Your task to perform on an android device: delete browsing data in the chrome app Image 0: 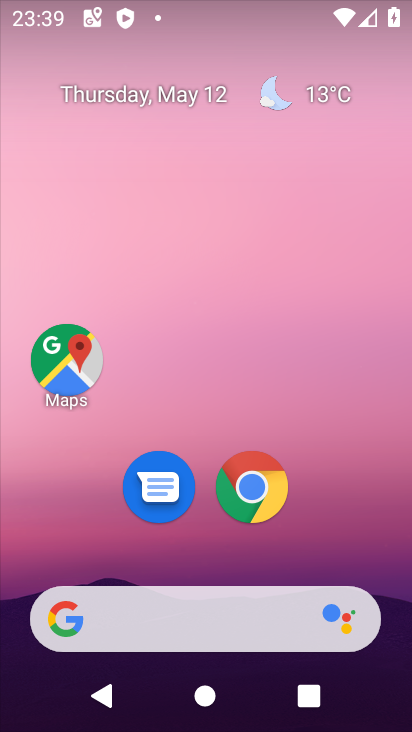
Step 0: click (242, 492)
Your task to perform on an android device: delete browsing data in the chrome app Image 1: 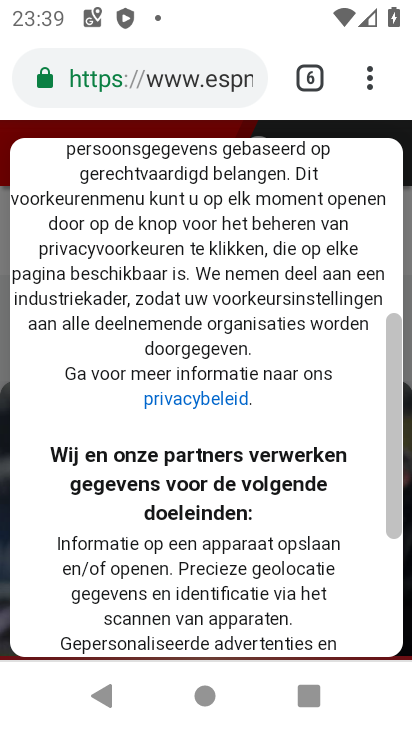
Step 1: click (386, 72)
Your task to perform on an android device: delete browsing data in the chrome app Image 2: 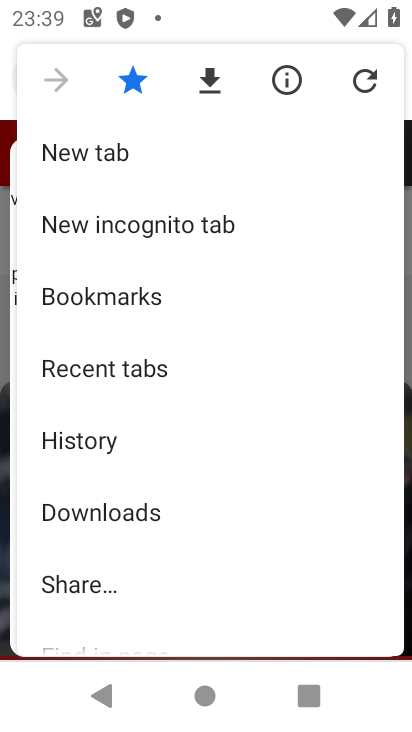
Step 2: drag from (128, 543) to (87, 99)
Your task to perform on an android device: delete browsing data in the chrome app Image 3: 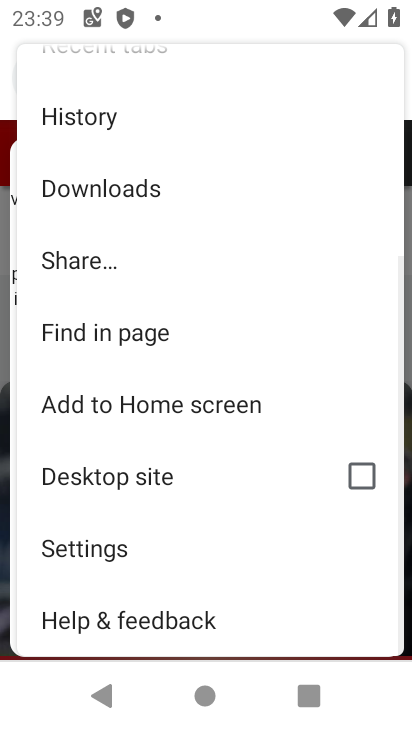
Step 3: click (103, 539)
Your task to perform on an android device: delete browsing data in the chrome app Image 4: 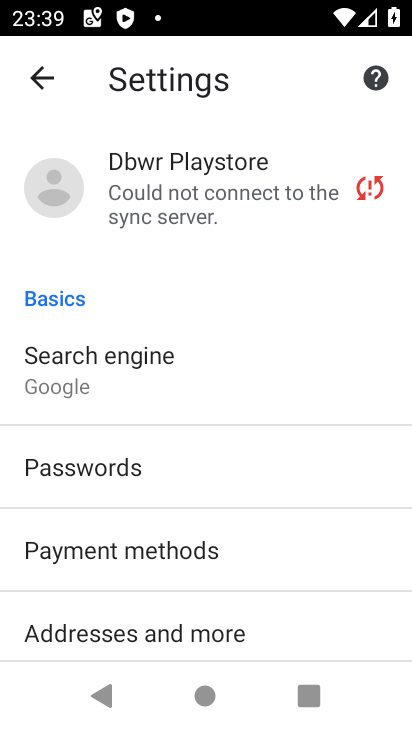
Step 4: drag from (103, 539) to (128, 102)
Your task to perform on an android device: delete browsing data in the chrome app Image 5: 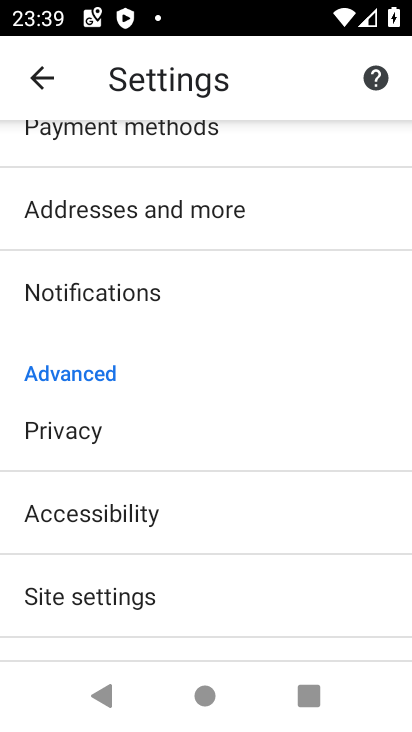
Step 5: drag from (121, 584) to (170, 156)
Your task to perform on an android device: delete browsing data in the chrome app Image 6: 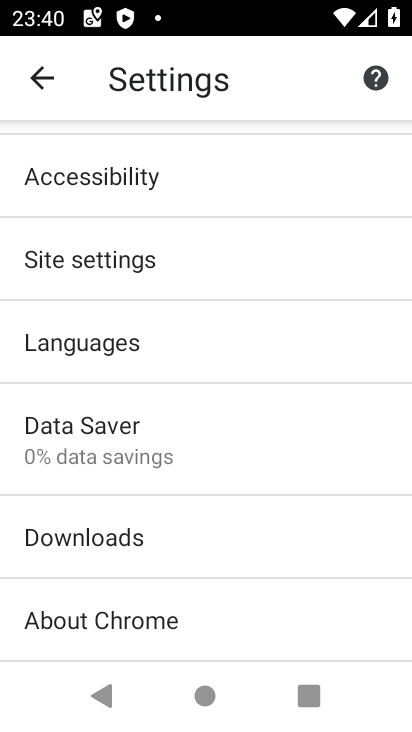
Step 6: click (167, 251)
Your task to perform on an android device: delete browsing data in the chrome app Image 7: 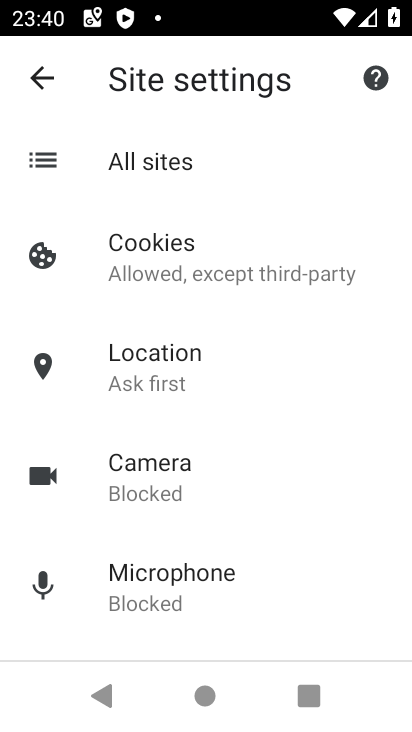
Step 7: drag from (183, 587) to (230, 270)
Your task to perform on an android device: delete browsing data in the chrome app Image 8: 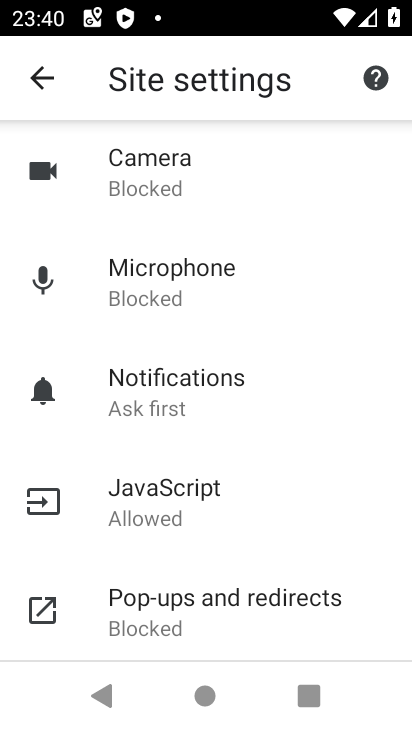
Step 8: click (53, 80)
Your task to perform on an android device: delete browsing data in the chrome app Image 9: 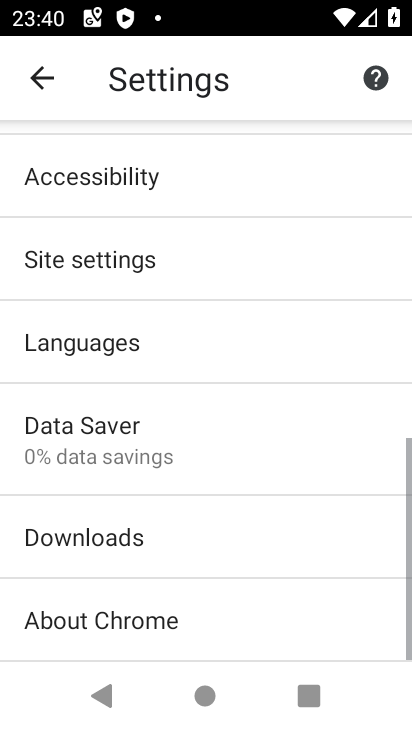
Step 9: click (53, 80)
Your task to perform on an android device: delete browsing data in the chrome app Image 10: 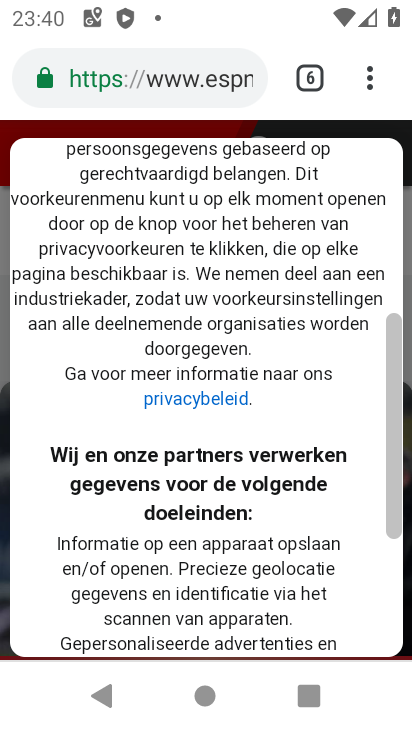
Step 10: click (375, 63)
Your task to perform on an android device: delete browsing data in the chrome app Image 11: 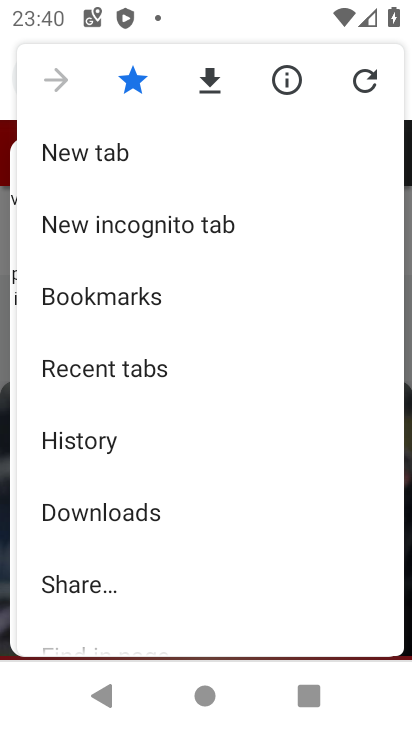
Step 11: click (115, 451)
Your task to perform on an android device: delete browsing data in the chrome app Image 12: 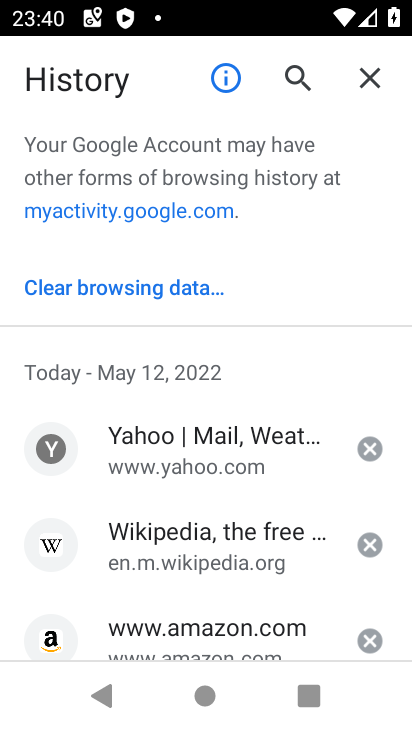
Step 12: click (171, 302)
Your task to perform on an android device: delete browsing data in the chrome app Image 13: 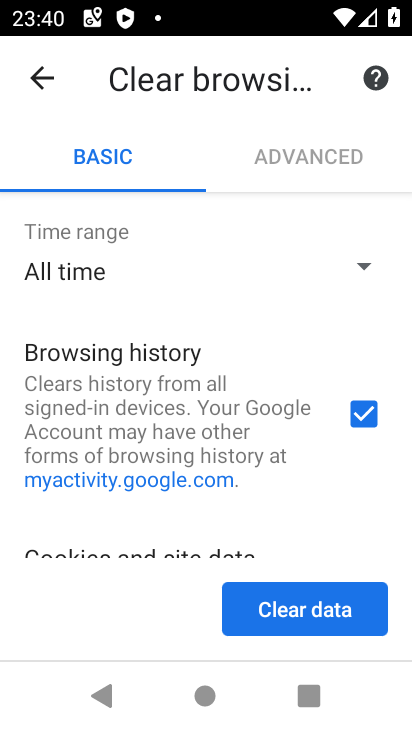
Step 13: click (295, 607)
Your task to perform on an android device: delete browsing data in the chrome app Image 14: 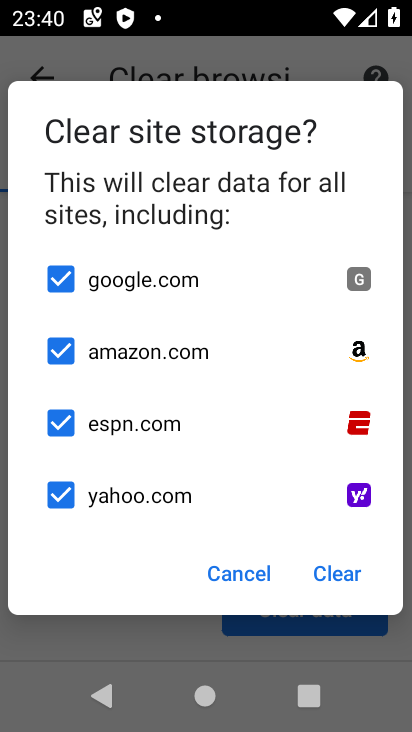
Step 14: click (328, 589)
Your task to perform on an android device: delete browsing data in the chrome app Image 15: 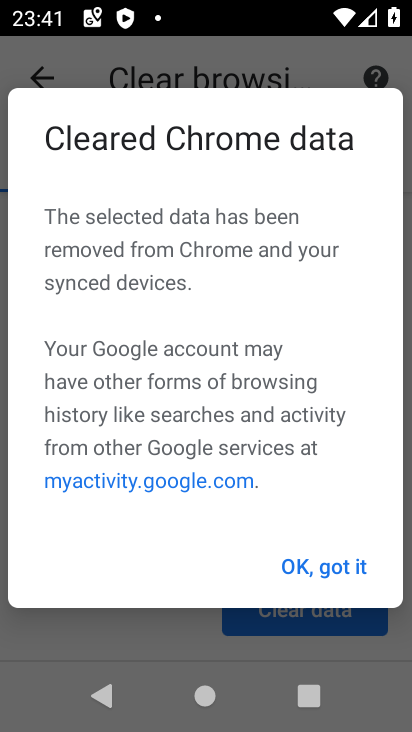
Step 15: click (356, 577)
Your task to perform on an android device: delete browsing data in the chrome app Image 16: 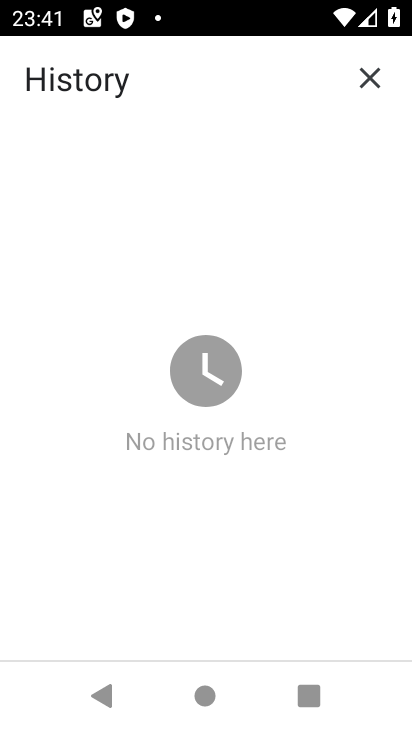
Step 16: task complete